Your task to perform on an android device: Open calendar and show me the third week of next month Image 0: 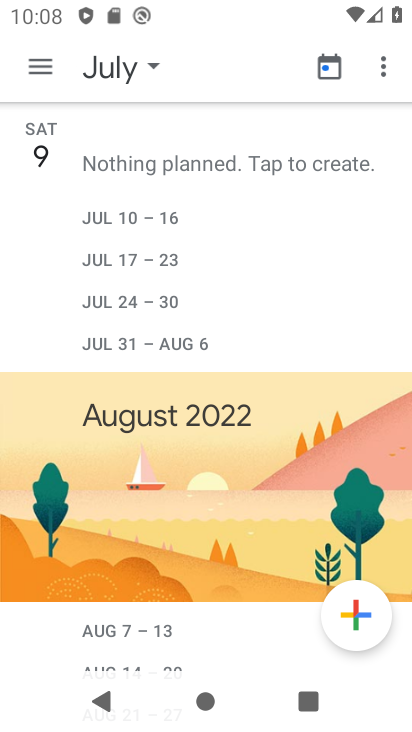
Step 0: click (37, 55)
Your task to perform on an android device: Open calendar and show me the third week of next month Image 1: 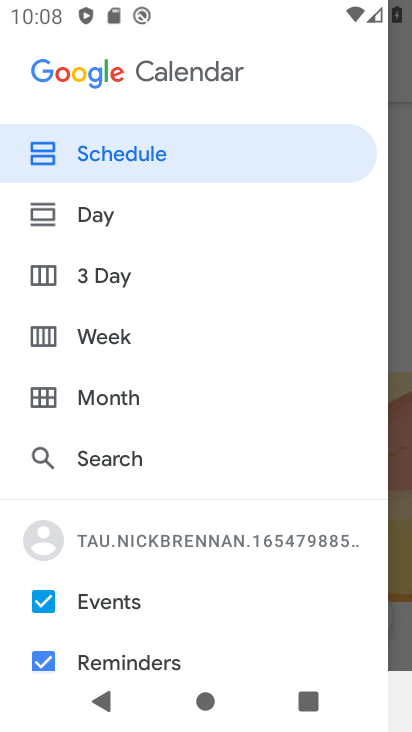
Step 1: click (116, 392)
Your task to perform on an android device: Open calendar and show me the third week of next month Image 2: 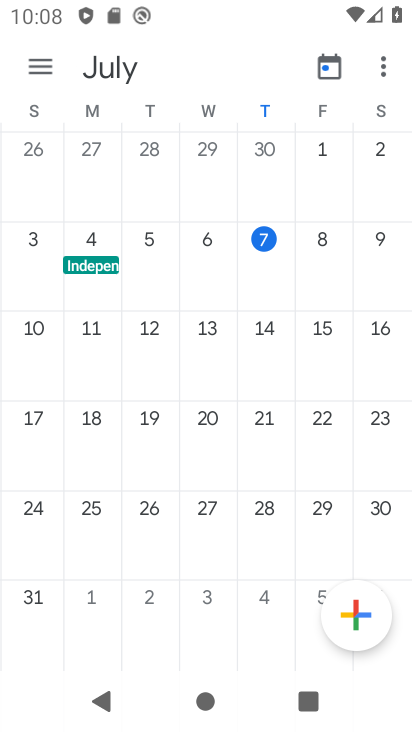
Step 2: drag from (364, 353) to (1, 361)
Your task to perform on an android device: Open calendar and show me the third week of next month Image 3: 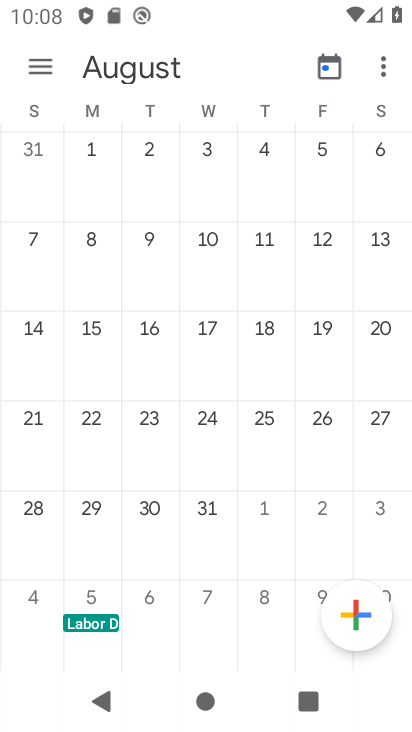
Step 3: click (34, 421)
Your task to perform on an android device: Open calendar and show me the third week of next month Image 4: 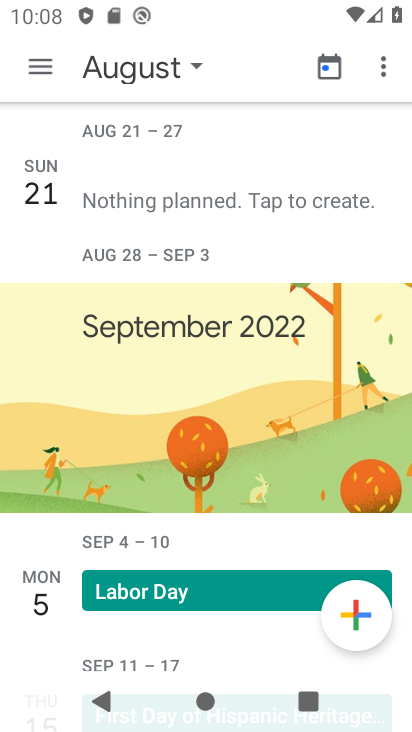
Step 4: click (38, 60)
Your task to perform on an android device: Open calendar and show me the third week of next month Image 5: 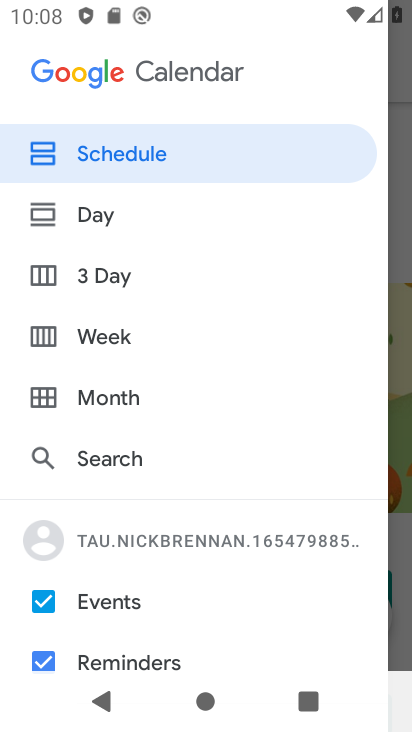
Step 5: click (106, 341)
Your task to perform on an android device: Open calendar and show me the third week of next month Image 6: 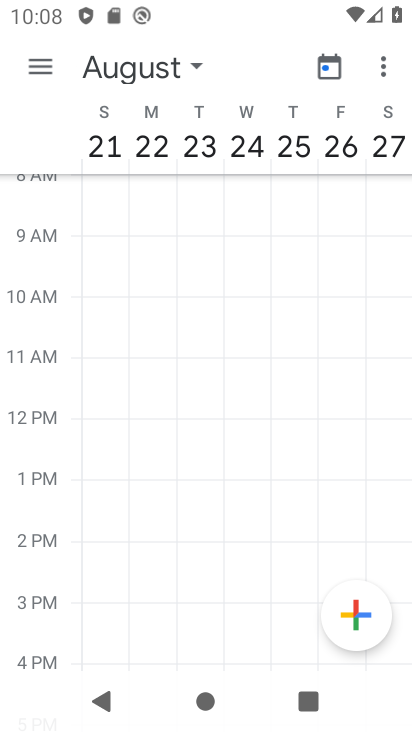
Step 6: task complete